Your task to perform on an android device: Open wifi settings Image 0: 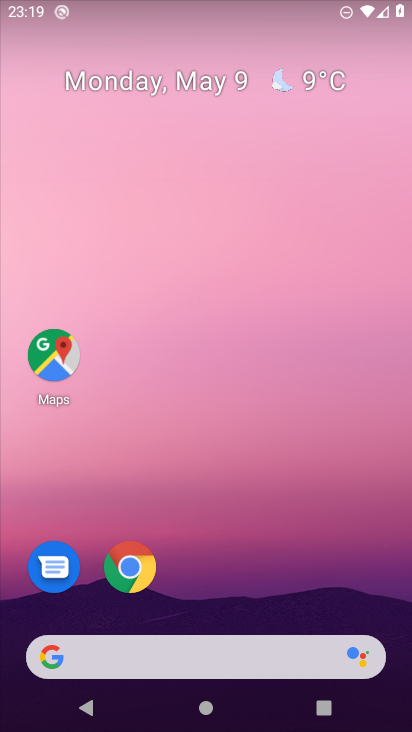
Step 0: press home button
Your task to perform on an android device: Open wifi settings Image 1: 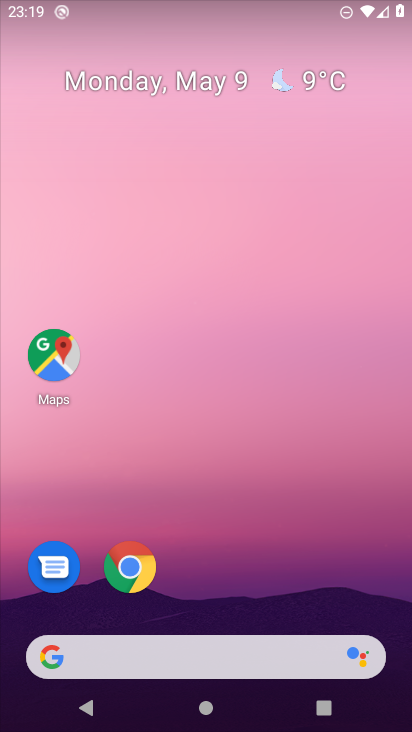
Step 1: drag from (220, 607) to (224, 108)
Your task to perform on an android device: Open wifi settings Image 2: 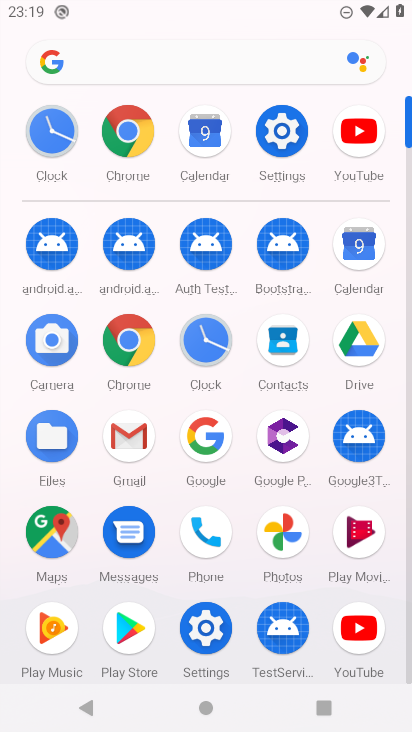
Step 2: click (280, 122)
Your task to perform on an android device: Open wifi settings Image 3: 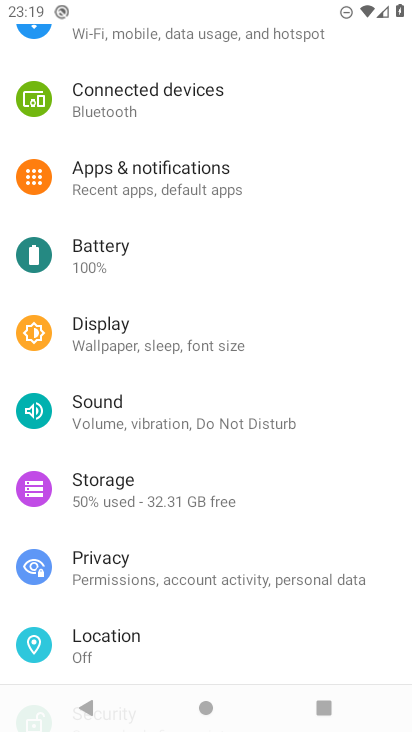
Step 3: drag from (149, 126) to (183, 606)
Your task to perform on an android device: Open wifi settings Image 4: 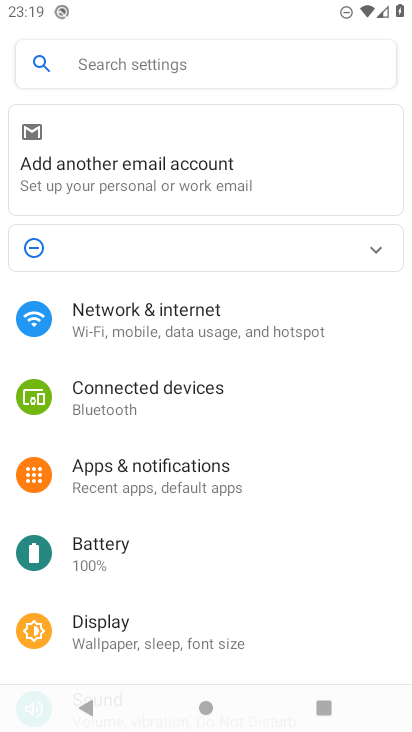
Step 4: click (154, 314)
Your task to perform on an android device: Open wifi settings Image 5: 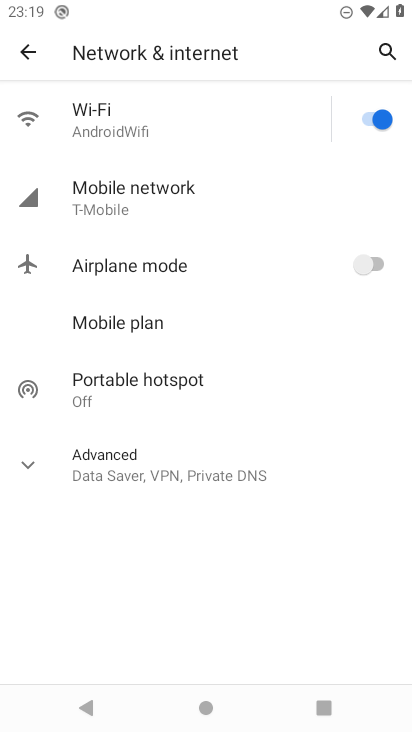
Step 5: click (160, 112)
Your task to perform on an android device: Open wifi settings Image 6: 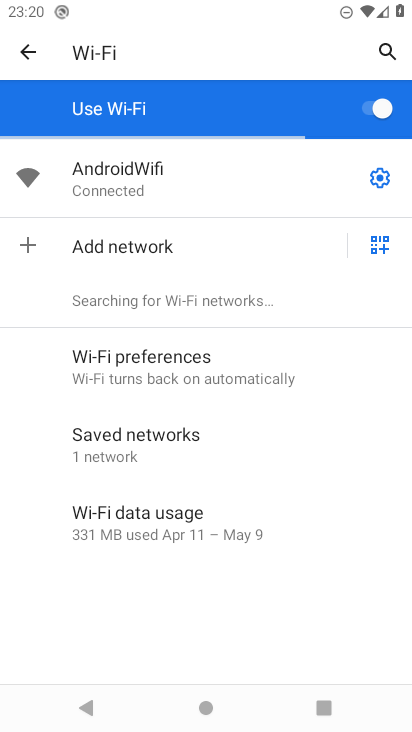
Step 6: click (169, 195)
Your task to perform on an android device: Open wifi settings Image 7: 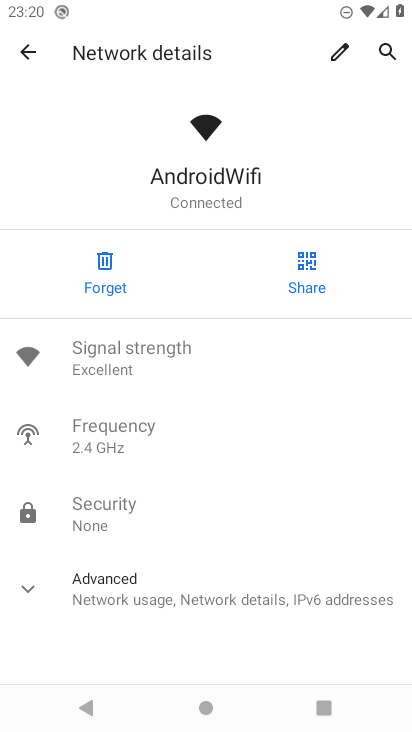
Step 7: task complete